Your task to perform on an android device: change the clock display to digital Image 0: 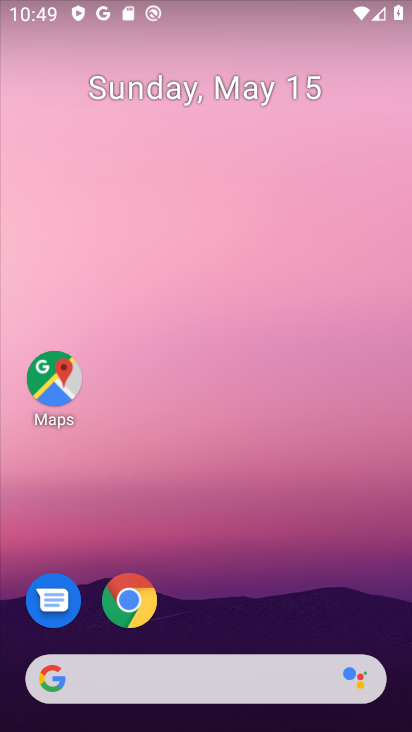
Step 0: drag from (225, 574) to (153, 38)
Your task to perform on an android device: change the clock display to digital Image 1: 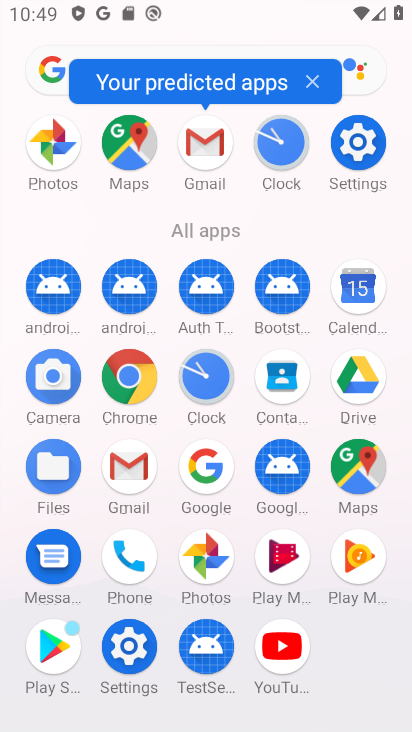
Step 1: click (200, 381)
Your task to perform on an android device: change the clock display to digital Image 2: 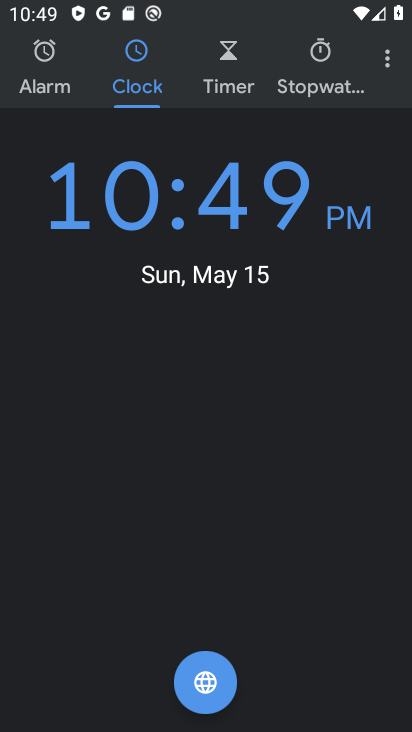
Step 2: click (387, 70)
Your task to perform on an android device: change the clock display to digital Image 3: 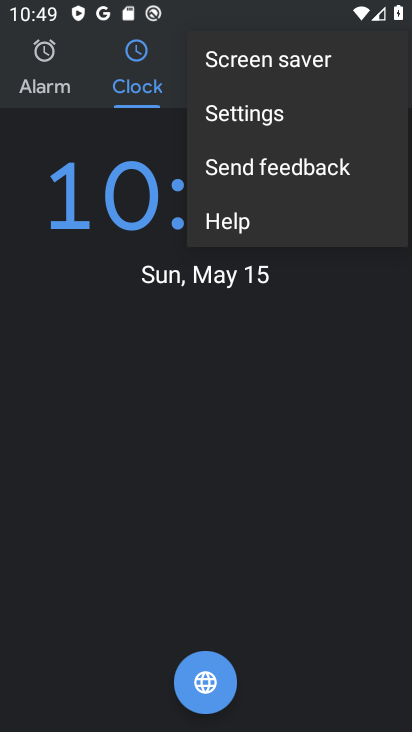
Step 3: click (286, 115)
Your task to perform on an android device: change the clock display to digital Image 4: 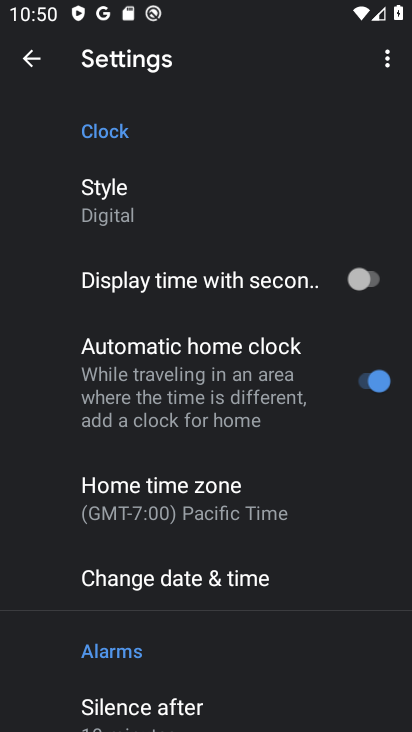
Step 4: click (103, 207)
Your task to perform on an android device: change the clock display to digital Image 5: 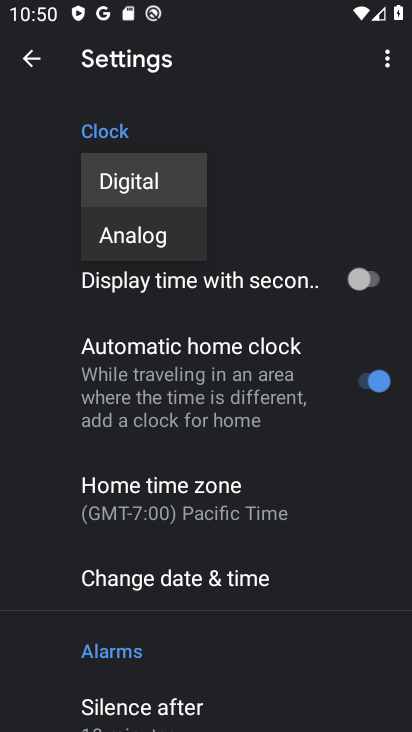
Step 5: click (143, 182)
Your task to perform on an android device: change the clock display to digital Image 6: 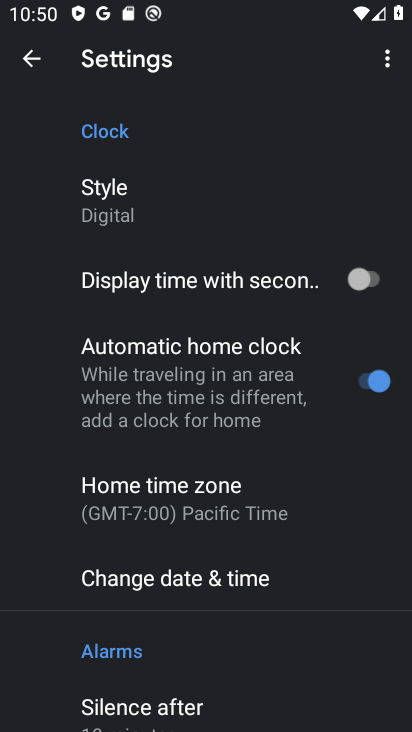
Step 6: task complete